Your task to perform on an android device: Check the settings for the Twitter app Image 0: 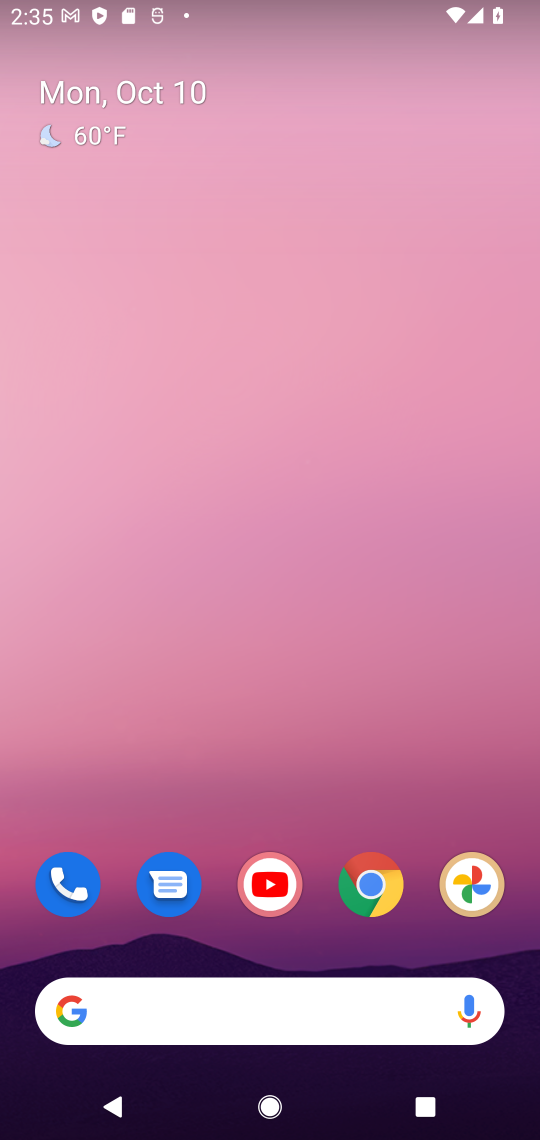
Step 0: drag from (320, 841) to (405, 28)
Your task to perform on an android device: Check the settings for the Twitter app Image 1: 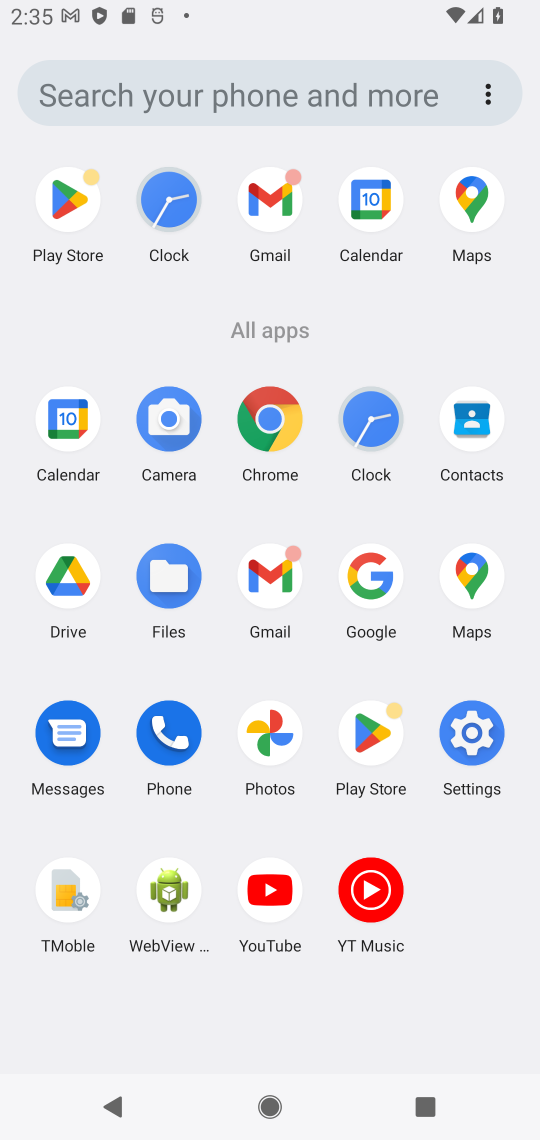
Step 1: task complete